Your task to perform on an android device: Add macbook pro to the cart on costco.com Image 0: 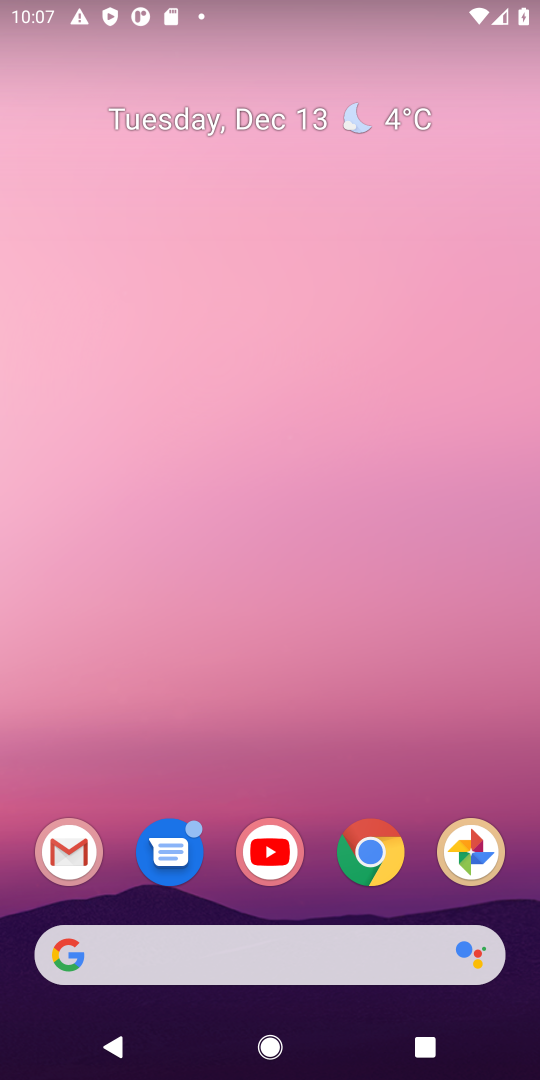
Step 0: press home button
Your task to perform on an android device: Add macbook pro to the cart on costco.com Image 1: 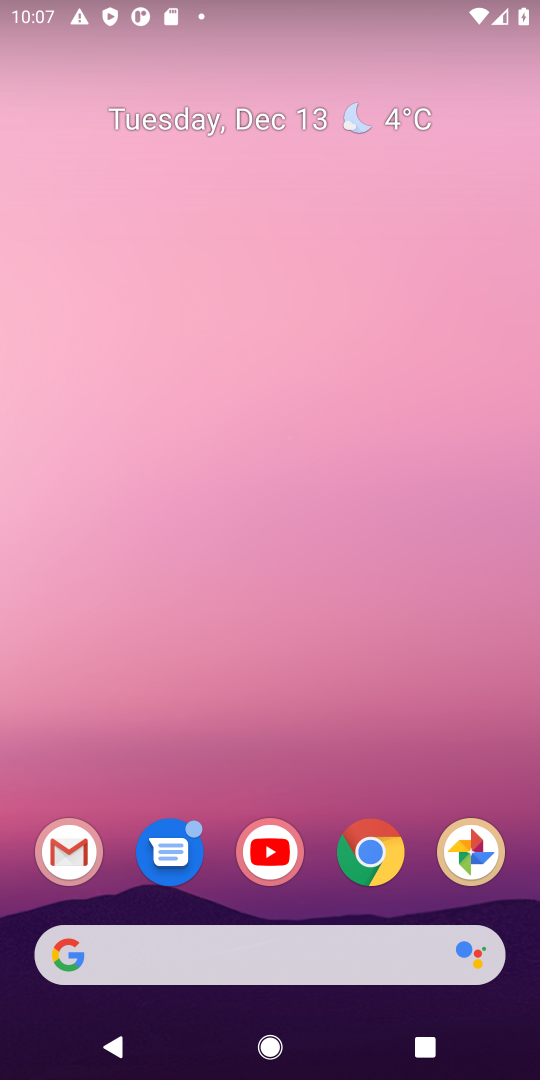
Step 1: click (103, 935)
Your task to perform on an android device: Add macbook pro to the cart on costco.com Image 2: 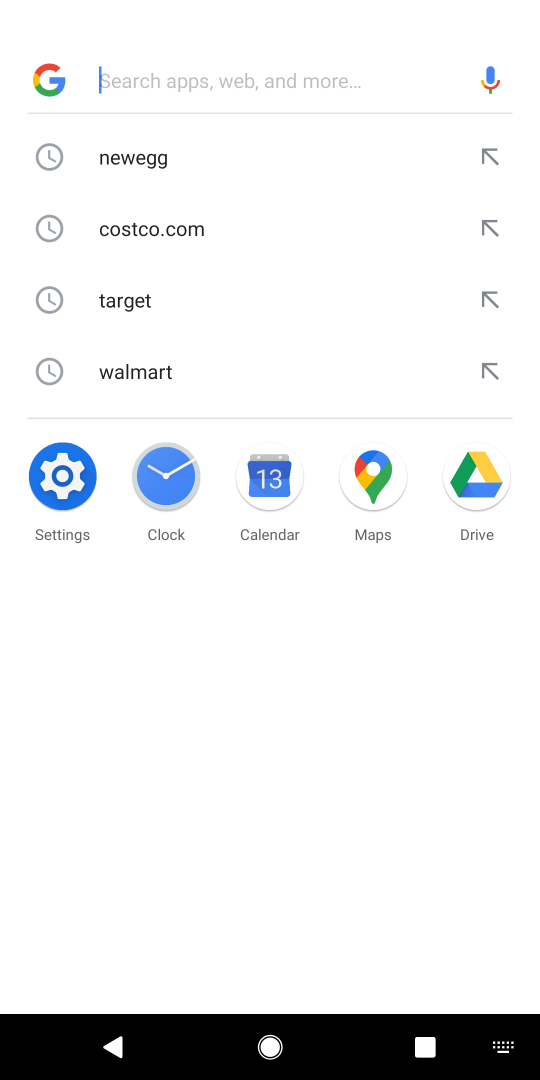
Step 2: press enter
Your task to perform on an android device: Add macbook pro to the cart on costco.com Image 3: 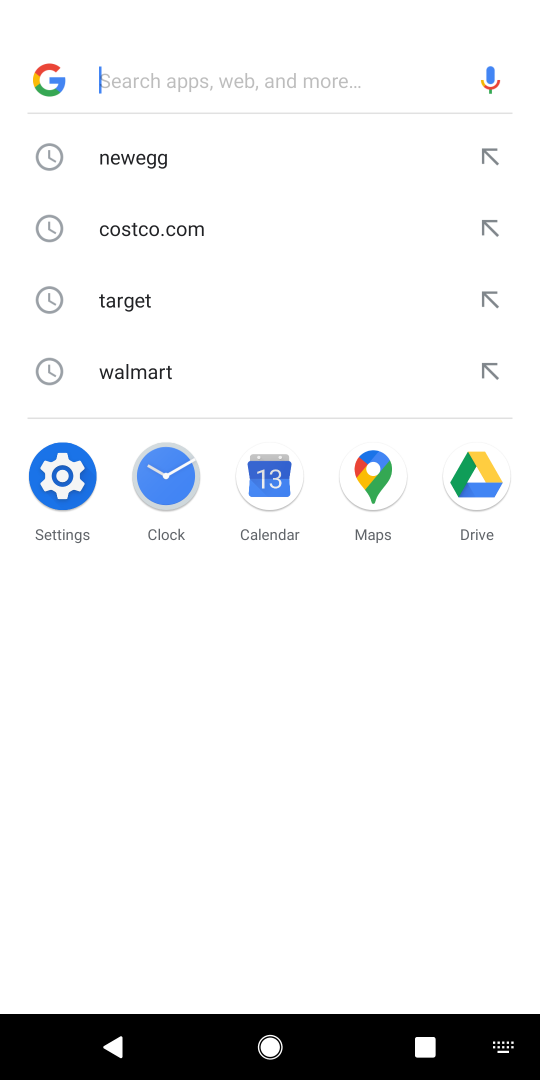
Step 3: type "costco.com"
Your task to perform on an android device: Add macbook pro to the cart on costco.com Image 4: 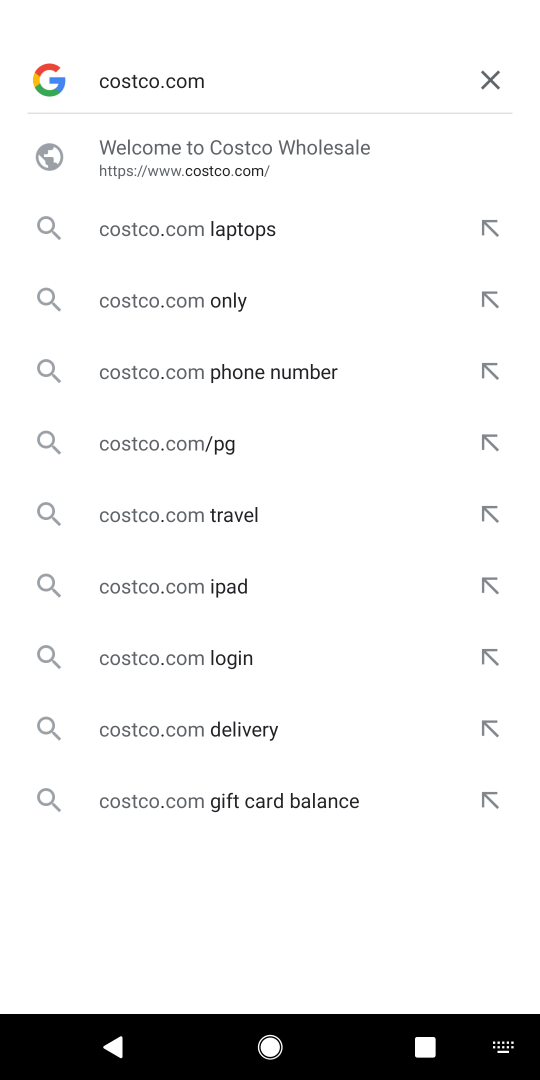
Step 4: press enter
Your task to perform on an android device: Add macbook pro to the cart on costco.com Image 5: 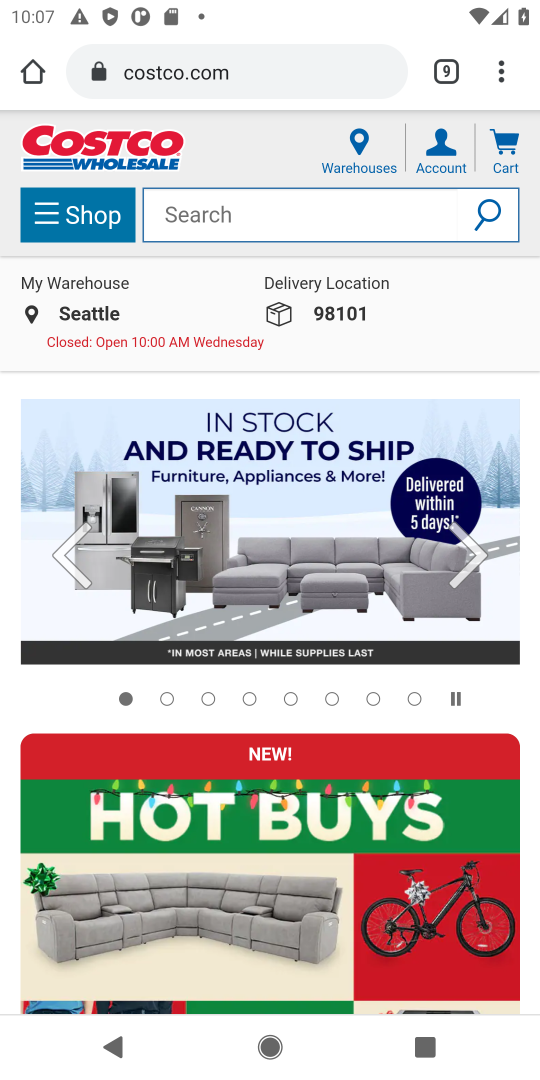
Step 5: click (219, 222)
Your task to perform on an android device: Add macbook pro to the cart on costco.com Image 6: 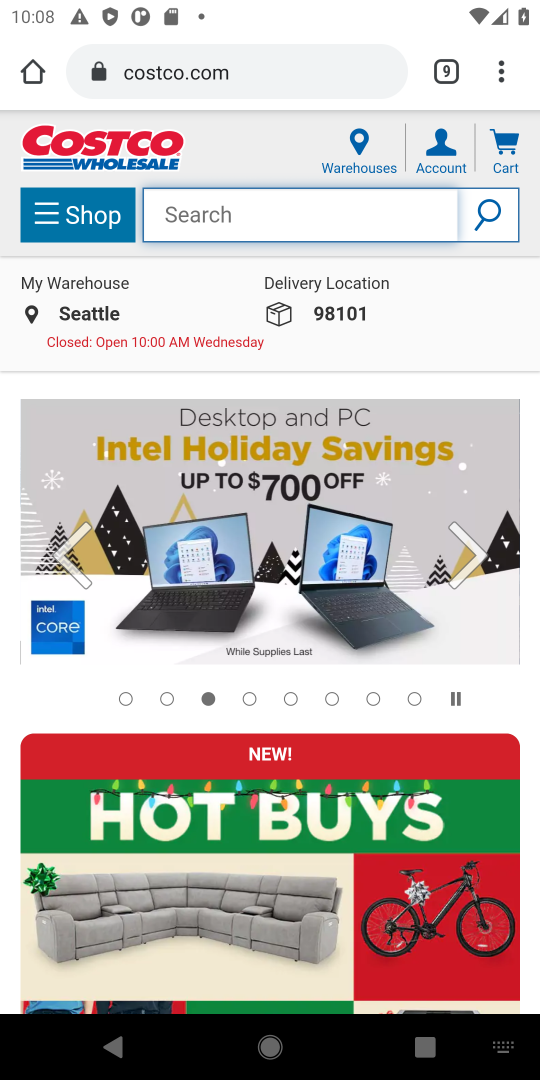
Step 6: type "macbook pro"
Your task to perform on an android device: Add macbook pro to the cart on costco.com Image 7: 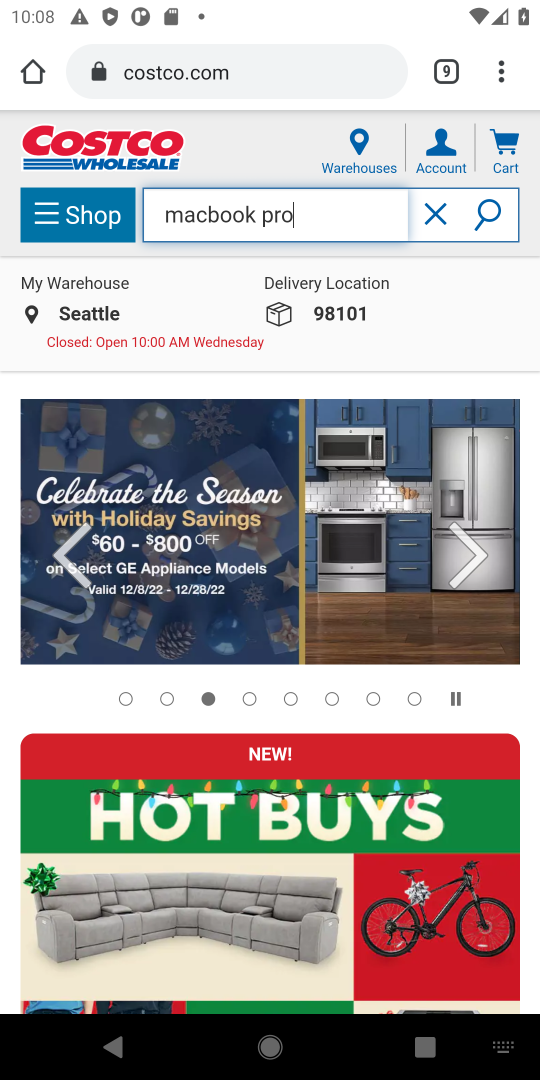
Step 7: press enter
Your task to perform on an android device: Add macbook pro to the cart on costco.com Image 8: 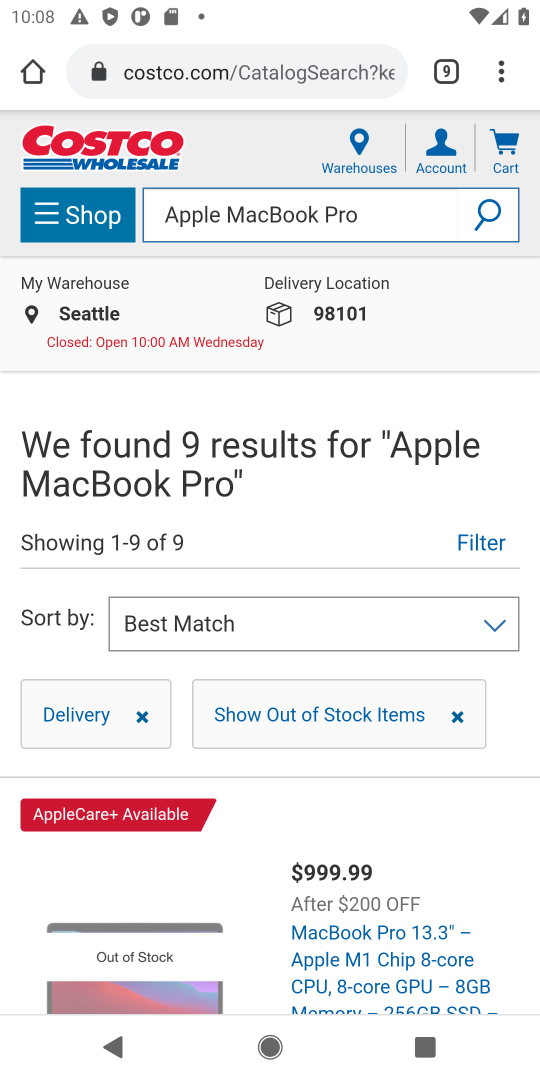
Step 8: drag from (320, 942) to (369, 461)
Your task to perform on an android device: Add macbook pro to the cart on costco.com Image 9: 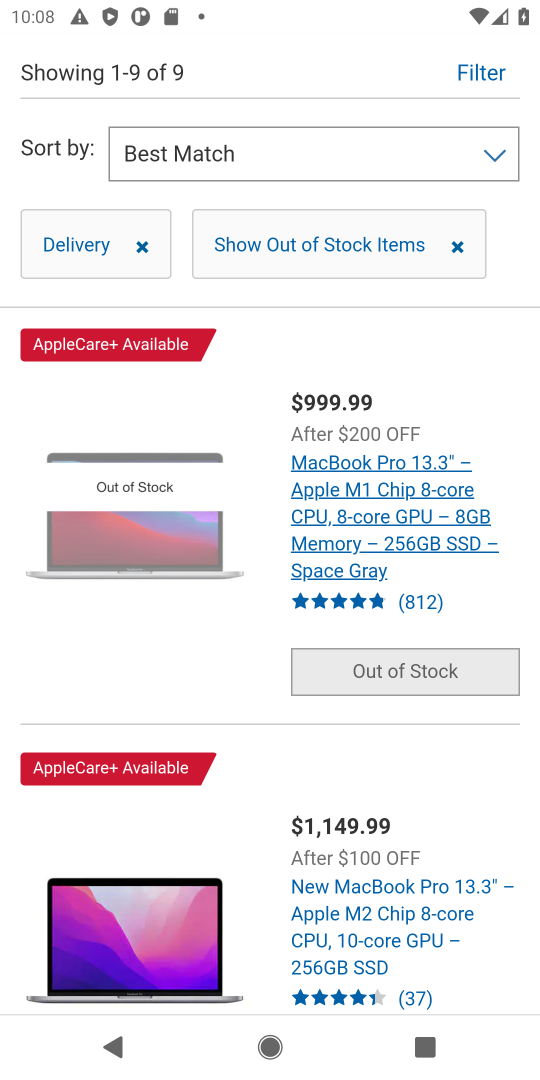
Step 9: drag from (359, 931) to (369, 419)
Your task to perform on an android device: Add macbook pro to the cart on costco.com Image 10: 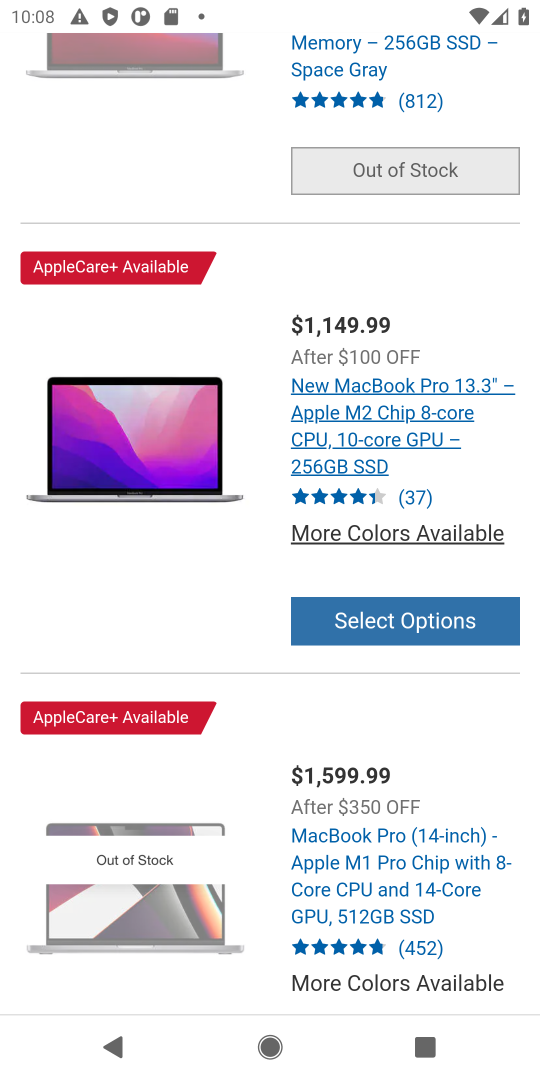
Step 10: click (324, 409)
Your task to perform on an android device: Add macbook pro to the cart on costco.com Image 11: 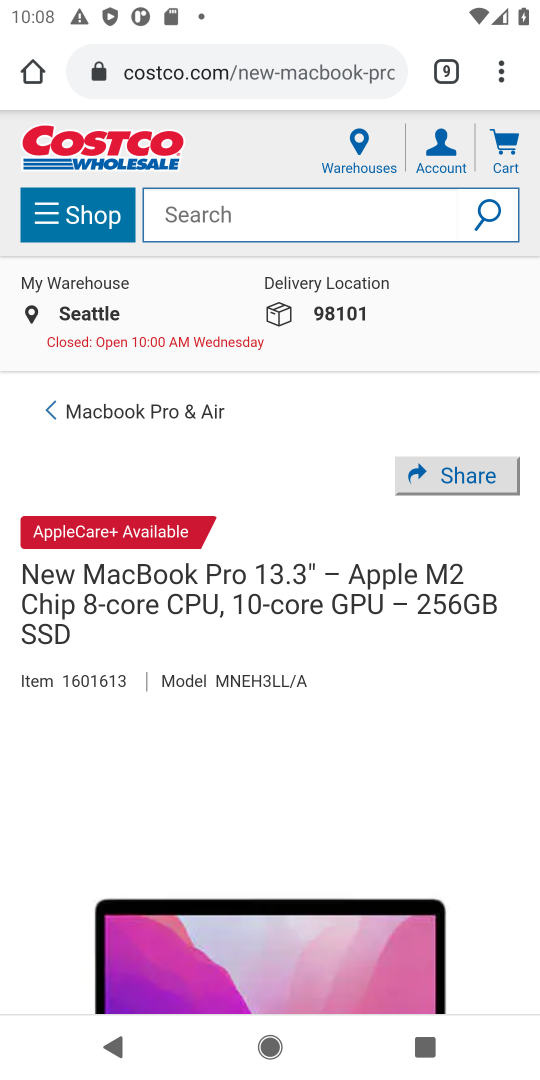
Step 11: drag from (278, 897) to (309, 419)
Your task to perform on an android device: Add macbook pro to the cart on costco.com Image 12: 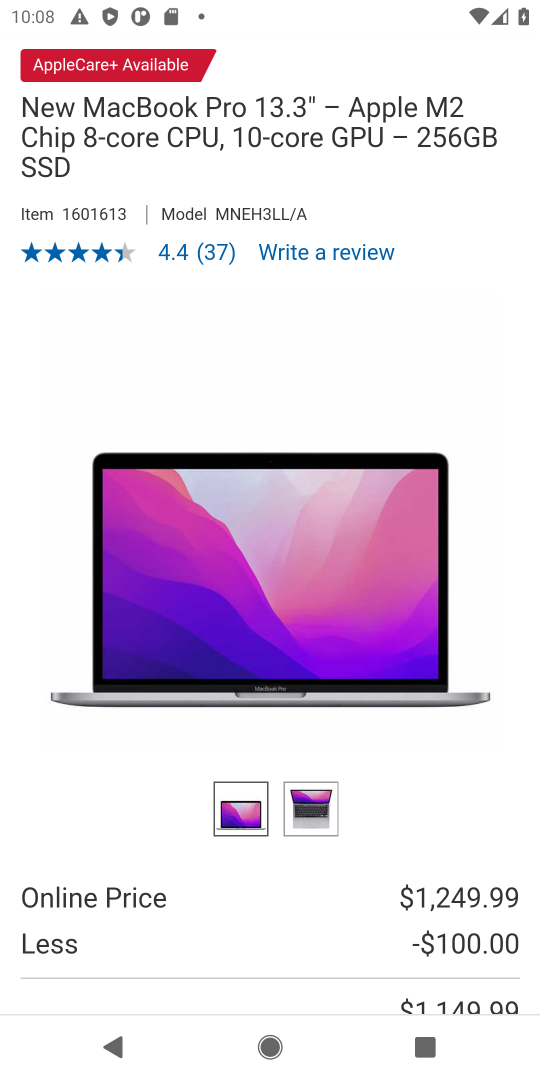
Step 12: drag from (281, 964) to (257, 330)
Your task to perform on an android device: Add macbook pro to the cart on costco.com Image 13: 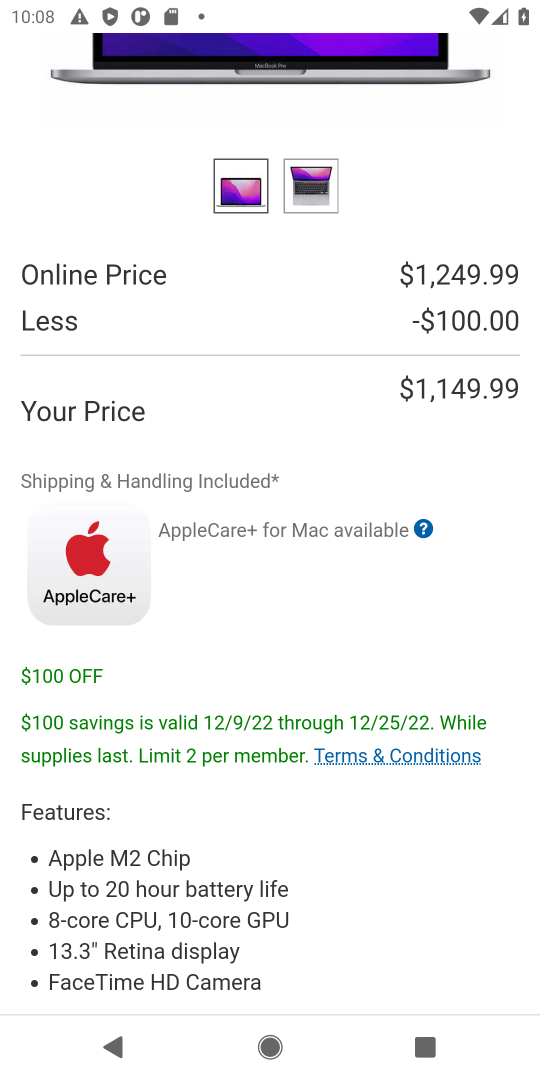
Step 13: drag from (306, 886) to (327, 353)
Your task to perform on an android device: Add macbook pro to the cart on costco.com Image 14: 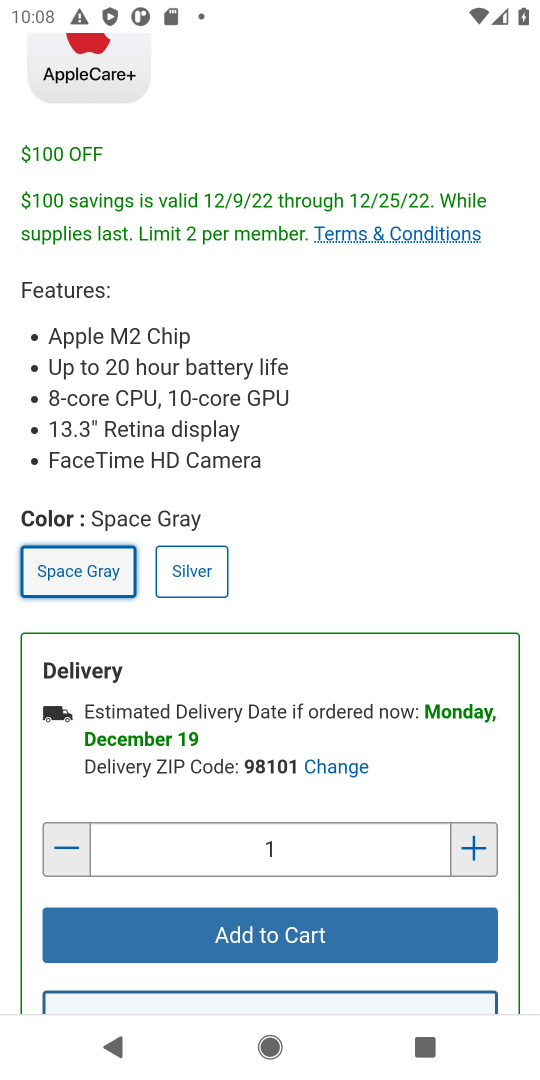
Step 14: drag from (343, 916) to (352, 435)
Your task to perform on an android device: Add macbook pro to the cart on costco.com Image 15: 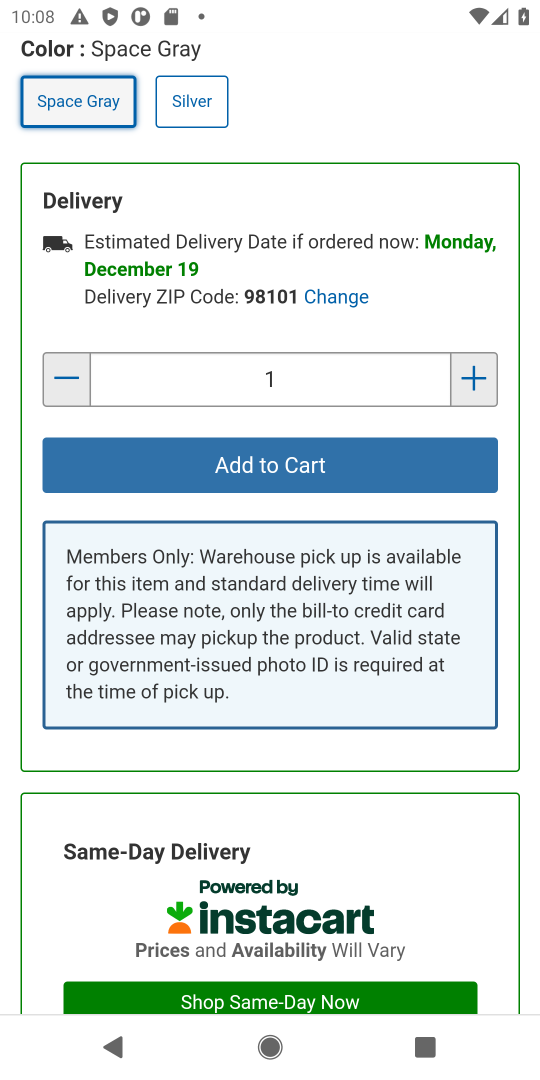
Step 15: click (255, 465)
Your task to perform on an android device: Add macbook pro to the cart on costco.com Image 16: 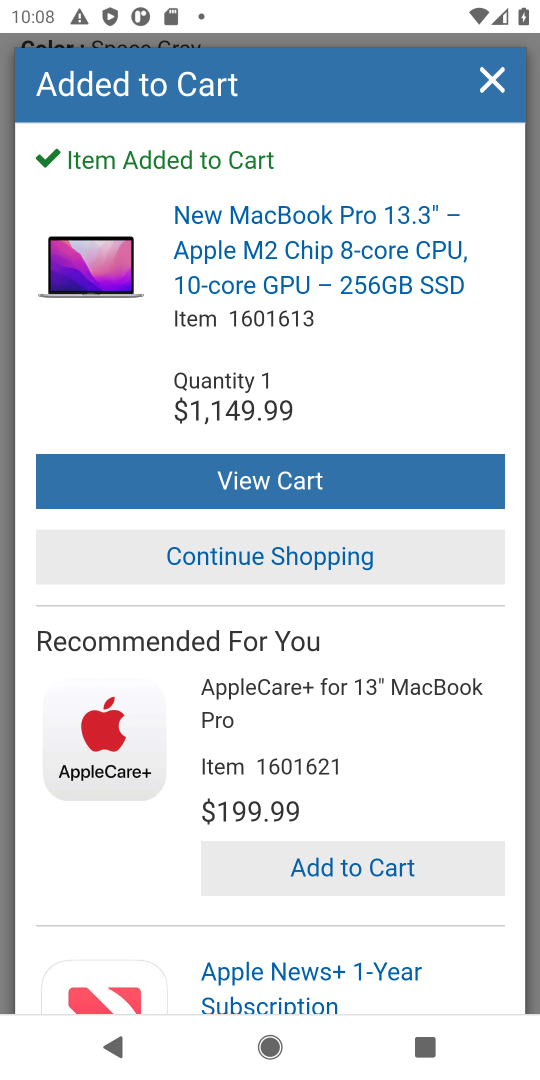
Step 16: task complete